Your task to perform on an android device: toggle notification dots Image 0: 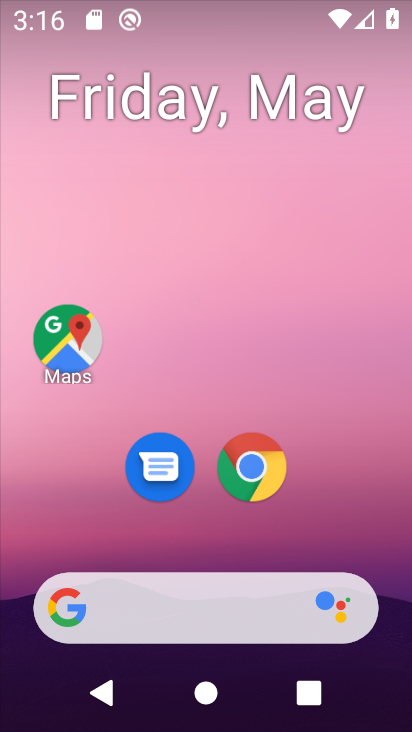
Step 0: drag from (309, 525) to (203, 58)
Your task to perform on an android device: toggle notification dots Image 1: 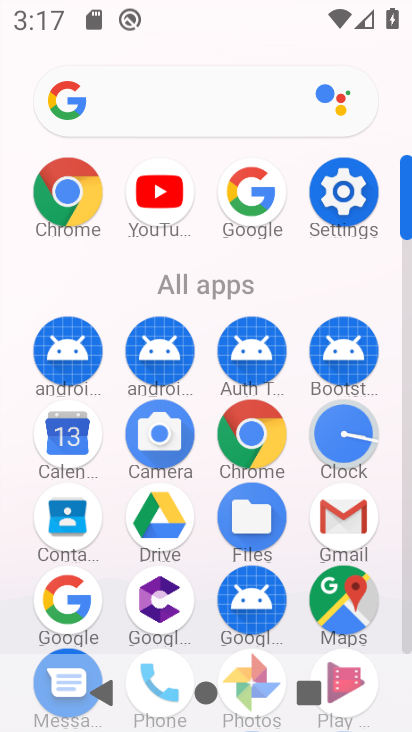
Step 1: click (346, 200)
Your task to perform on an android device: toggle notification dots Image 2: 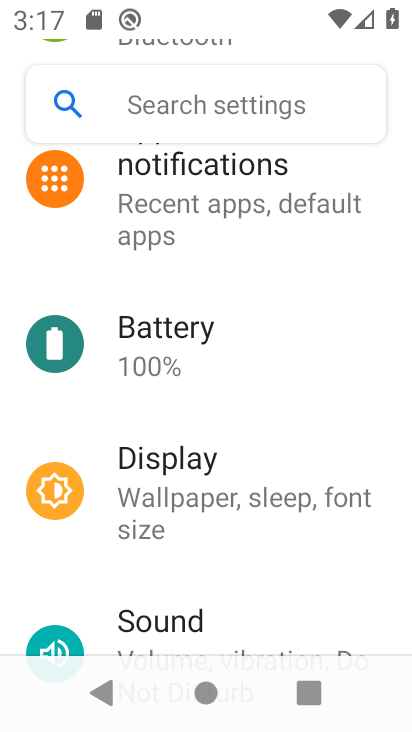
Step 2: click (245, 203)
Your task to perform on an android device: toggle notification dots Image 3: 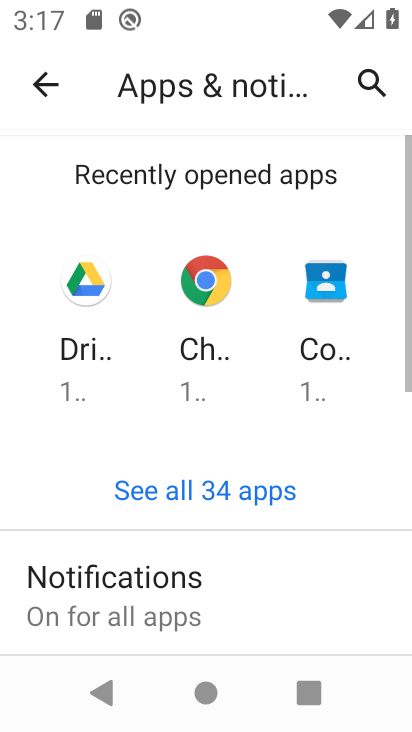
Step 3: click (224, 597)
Your task to perform on an android device: toggle notification dots Image 4: 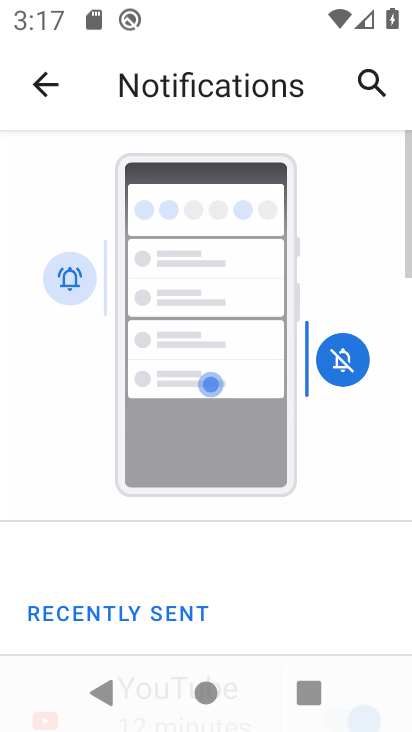
Step 4: drag from (241, 598) to (273, 140)
Your task to perform on an android device: toggle notification dots Image 5: 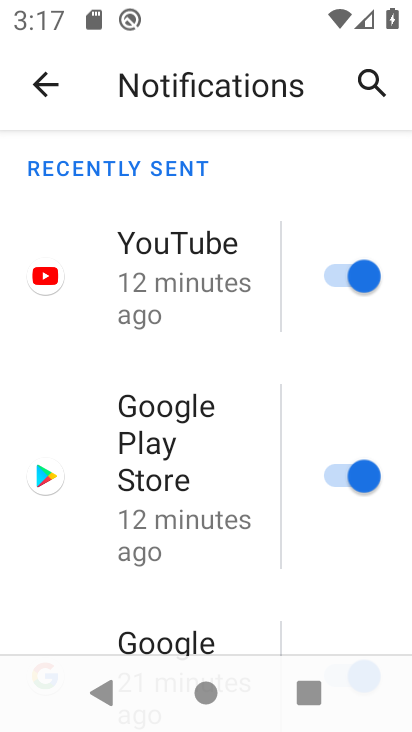
Step 5: drag from (221, 555) to (237, 197)
Your task to perform on an android device: toggle notification dots Image 6: 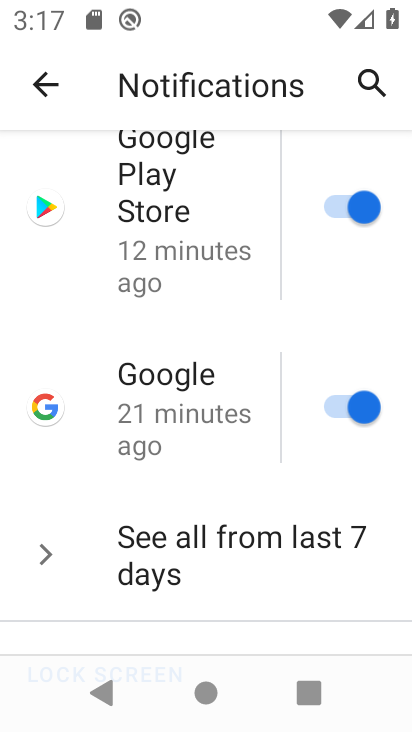
Step 6: drag from (215, 552) to (212, 165)
Your task to perform on an android device: toggle notification dots Image 7: 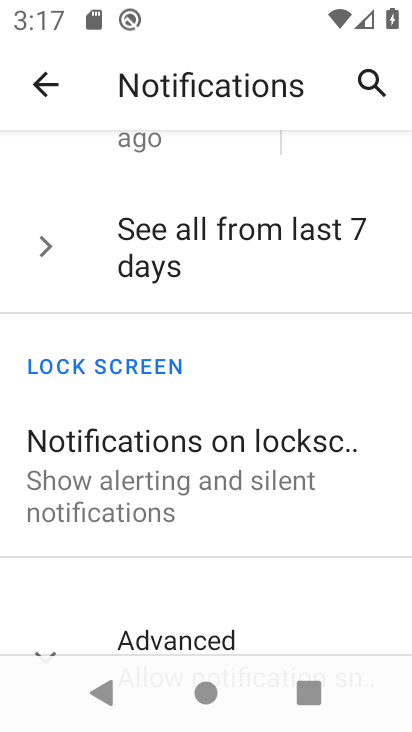
Step 7: click (235, 316)
Your task to perform on an android device: toggle notification dots Image 8: 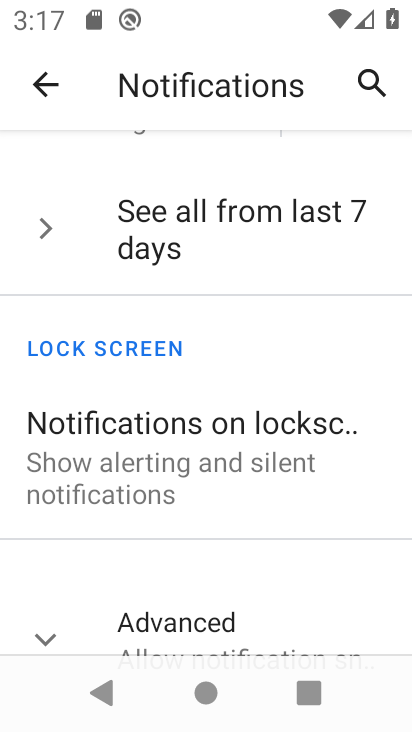
Step 8: click (214, 614)
Your task to perform on an android device: toggle notification dots Image 9: 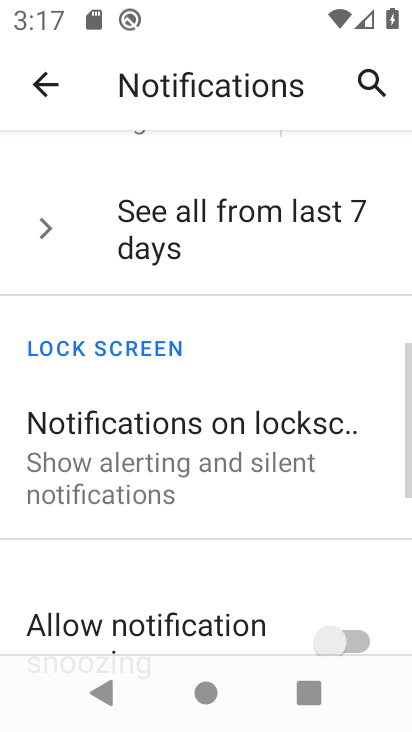
Step 9: drag from (232, 548) to (238, 199)
Your task to perform on an android device: toggle notification dots Image 10: 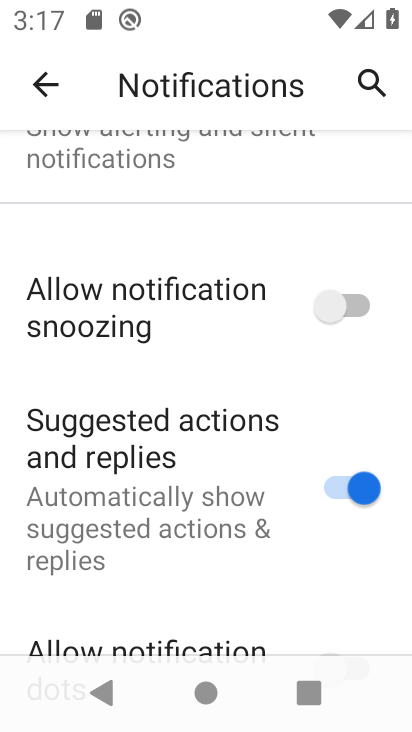
Step 10: drag from (267, 557) to (253, 340)
Your task to perform on an android device: toggle notification dots Image 11: 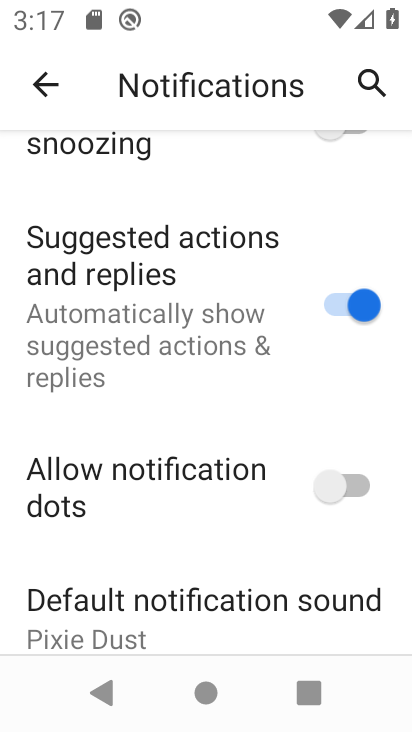
Step 11: click (346, 498)
Your task to perform on an android device: toggle notification dots Image 12: 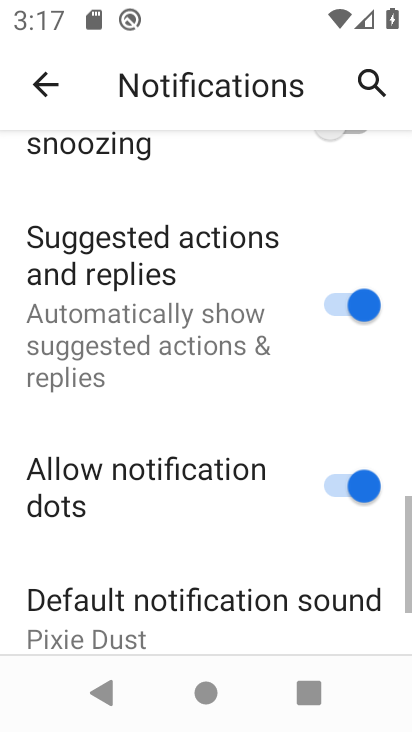
Step 12: task complete